Your task to perform on an android device: turn off notifications in google photos Image 0: 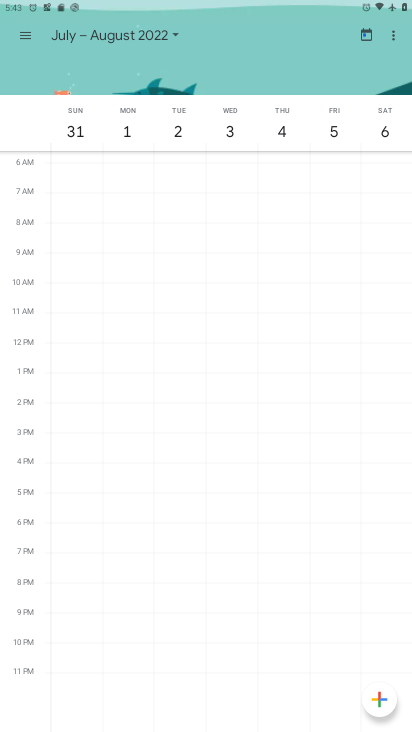
Step 0: press home button
Your task to perform on an android device: turn off notifications in google photos Image 1: 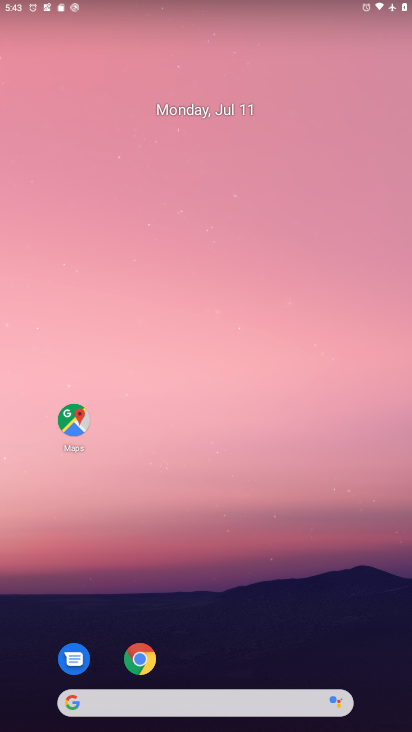
Step 1: drag from (370, 614) to (336, 119)
Your task to perform on an android device: turn off notifications in google photos Image 2: 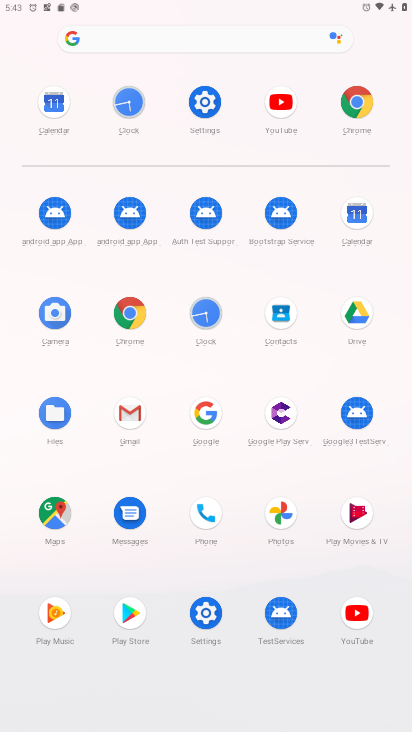
Step 2: click (278, 512)
Your task to perform on an android device: turn off notifications in google photos Image 3: 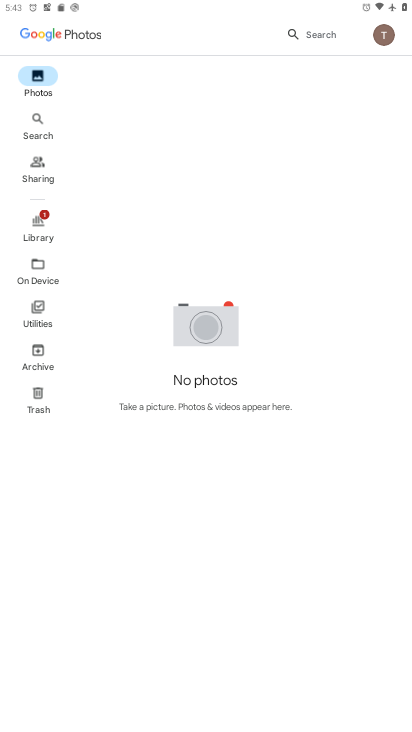
Step 3: click (386, 38)
Your task to perform on an android device: turn off notifications in google photos Image 4: 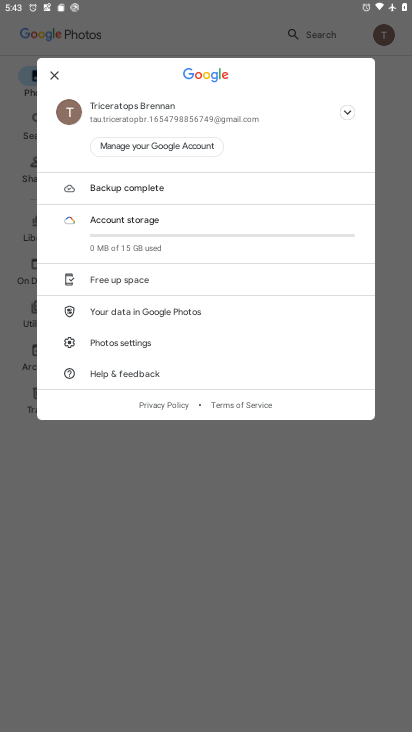
Step 4: click (130, 339)
Your task to perform on an android device: turn off notifications in google photos Image 5: 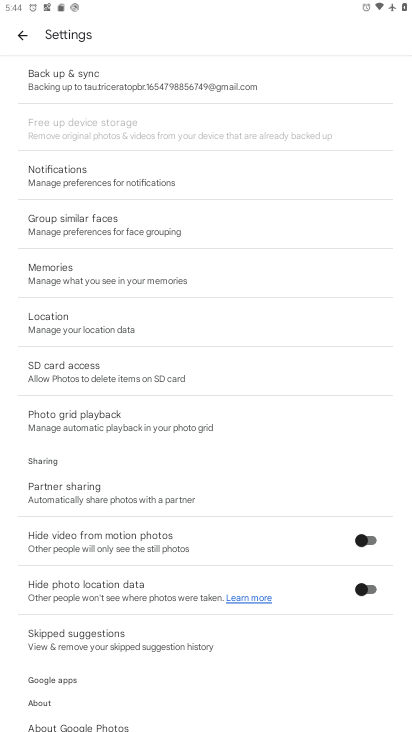
Step 5: click (64, 176)
Your task to perform on an android device: turn off notifications in google photos Image 6: 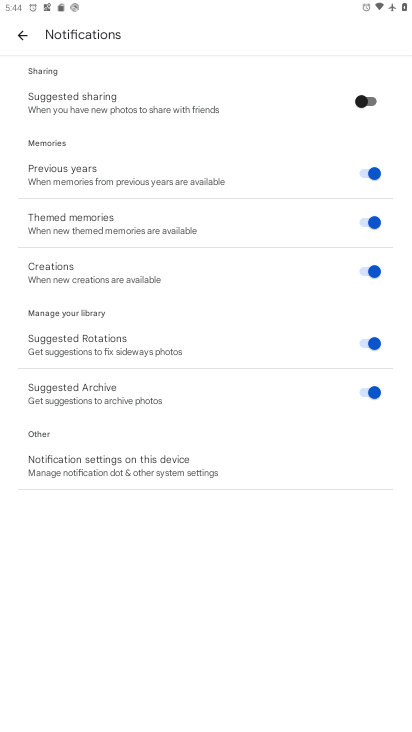
Step 6: click (108, 467)
Your task to perform on an android device: turn off notifications in google photos Image 7: 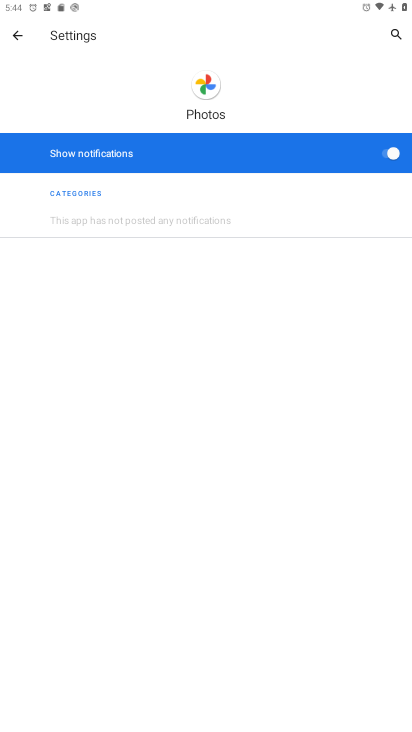
Step 7: click (383, 154)
Your task to perform on an android device: turn off notifications in google photos Image 8: 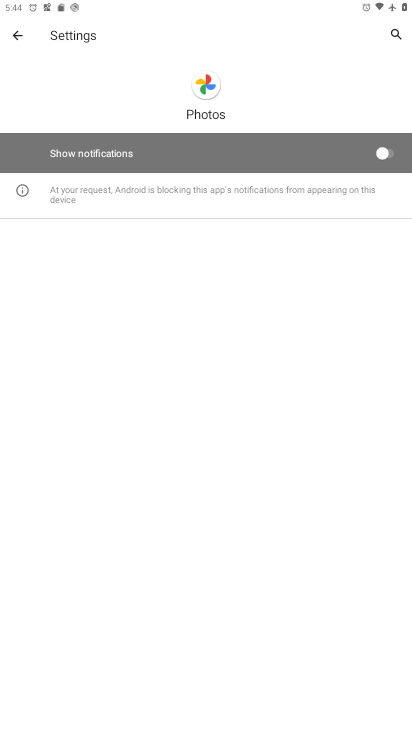
Step 8: task complete